Your task to perform on an android device: visit the assistant section in the google photos Image 0: 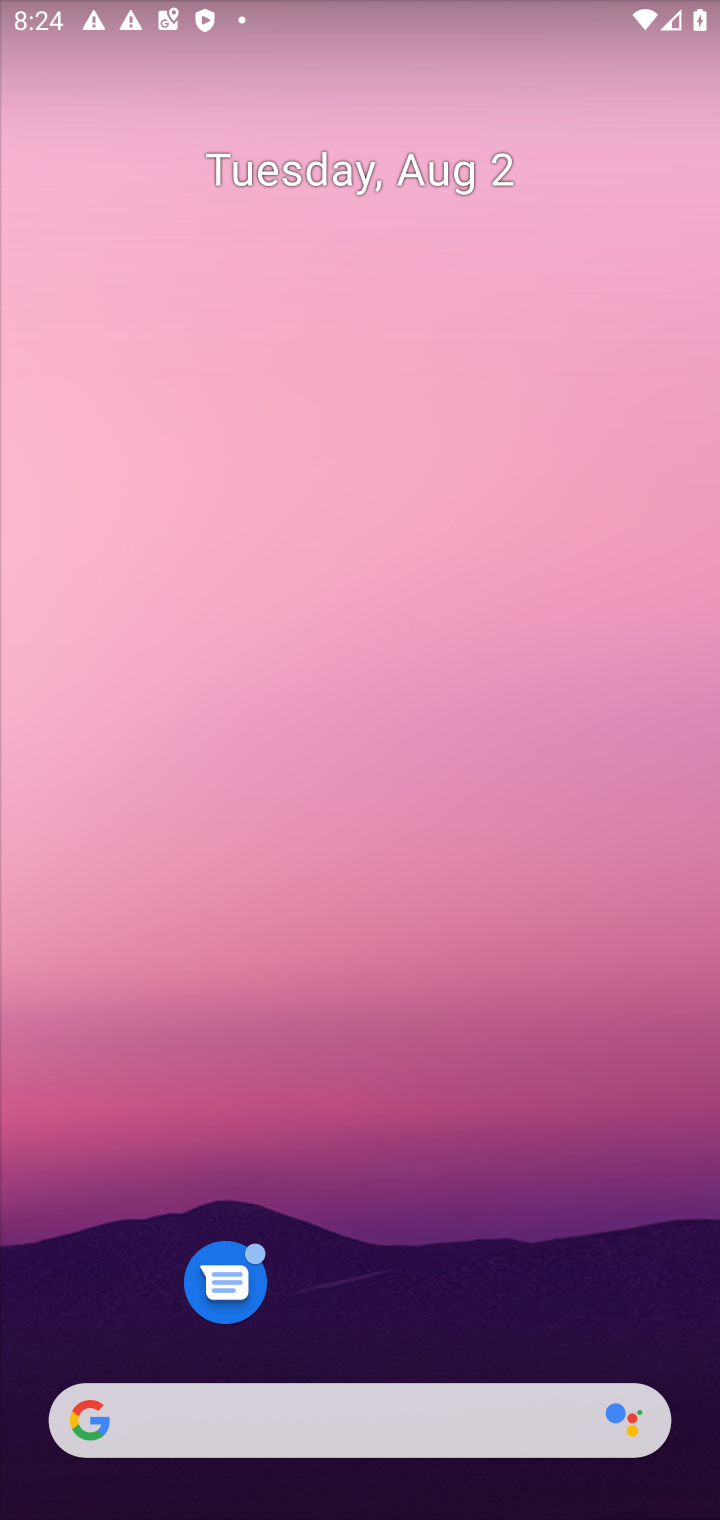
Step 0: drag from (314, 1384) to (65, 0)
Your task to perform on an android device: visit the assistant section in the google photos Image 1: 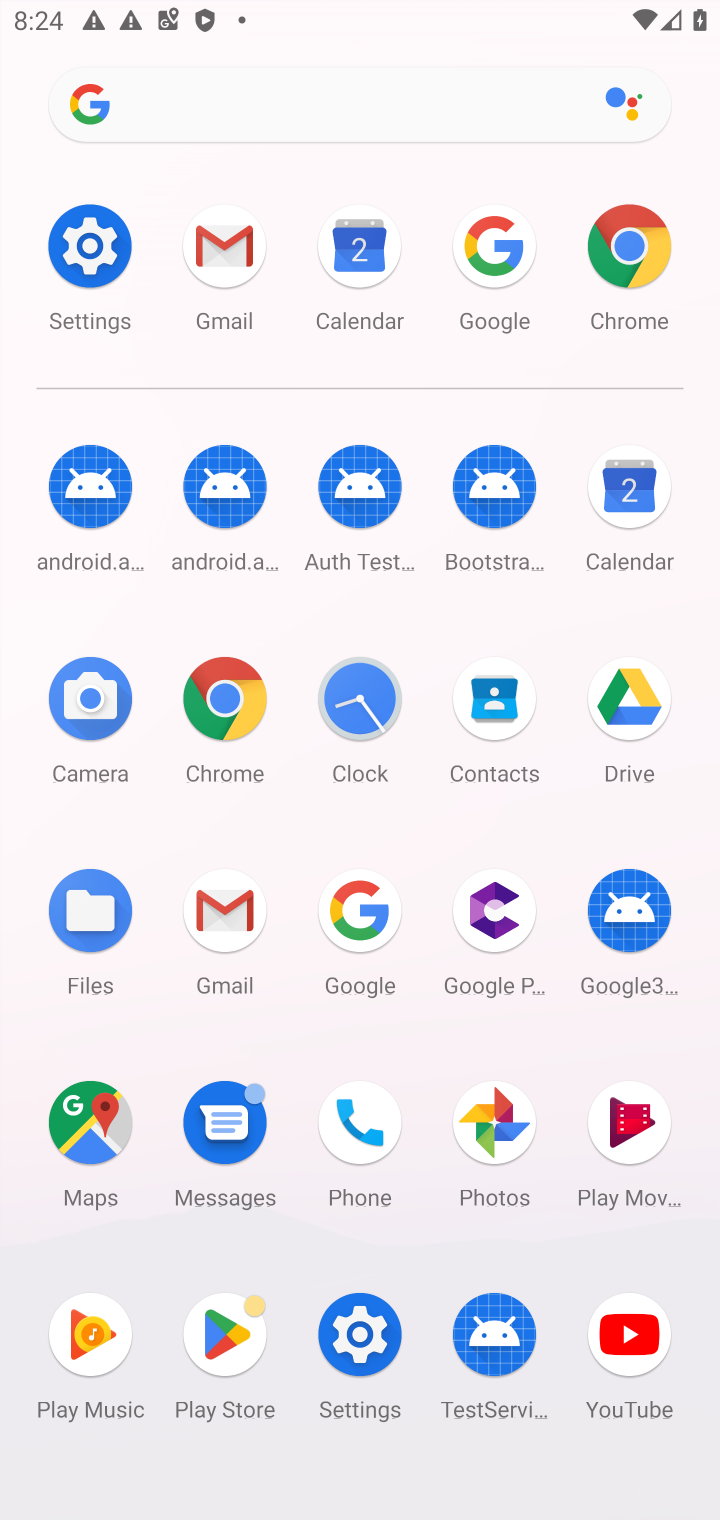
Step 1: click (517, 1137)
Your task to perform on an android device: visit the assistant section in the google photos Image 2: 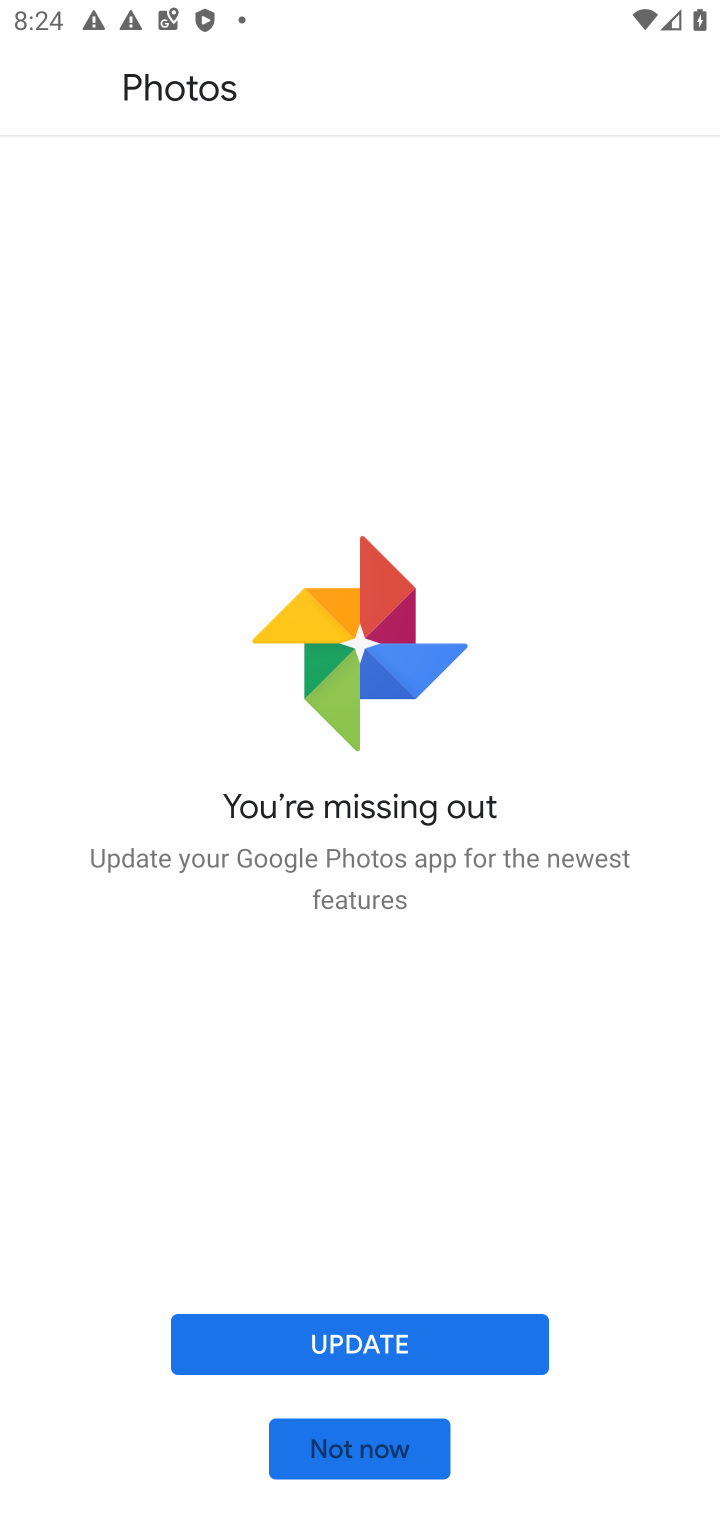
Step 2: click (358, 1447)
Your task to perform on an android device: visit the assistant section in the google photos Image 3: 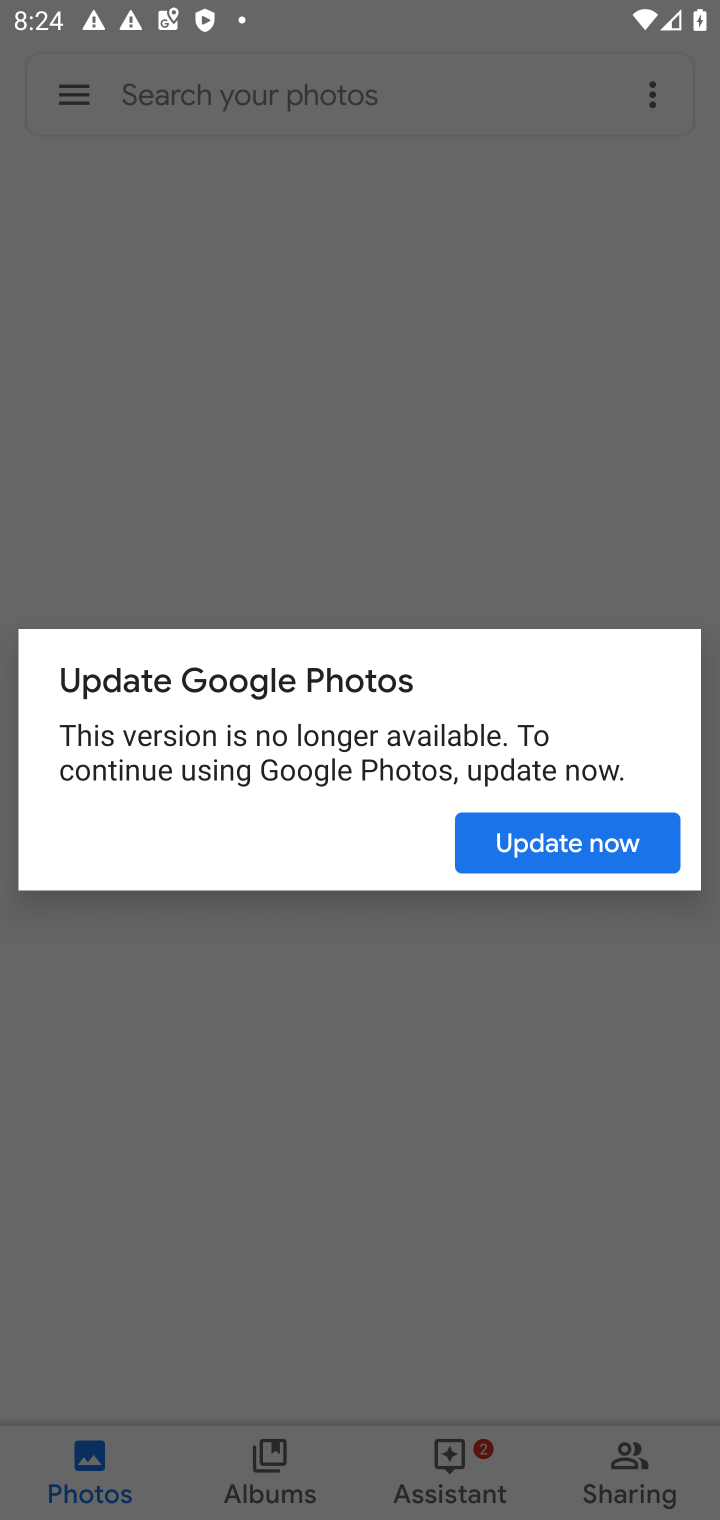
Step 3: click (606, 843)
Your task to perform on an android device: visit the assistant section in the google photos Image 4: 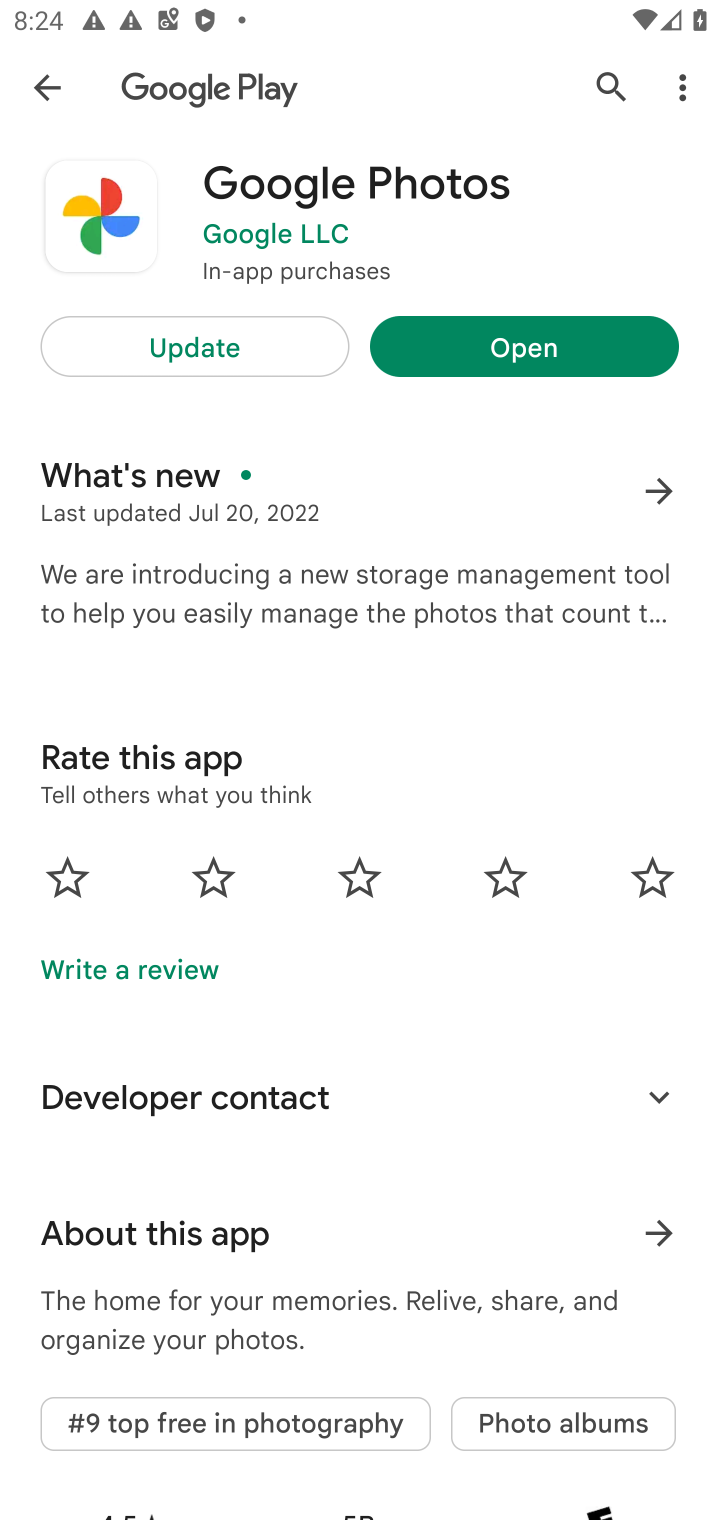
Step 4: click (477, 364)
Your task to perform on an android device: visit the assistant section in the google photos Image 5: 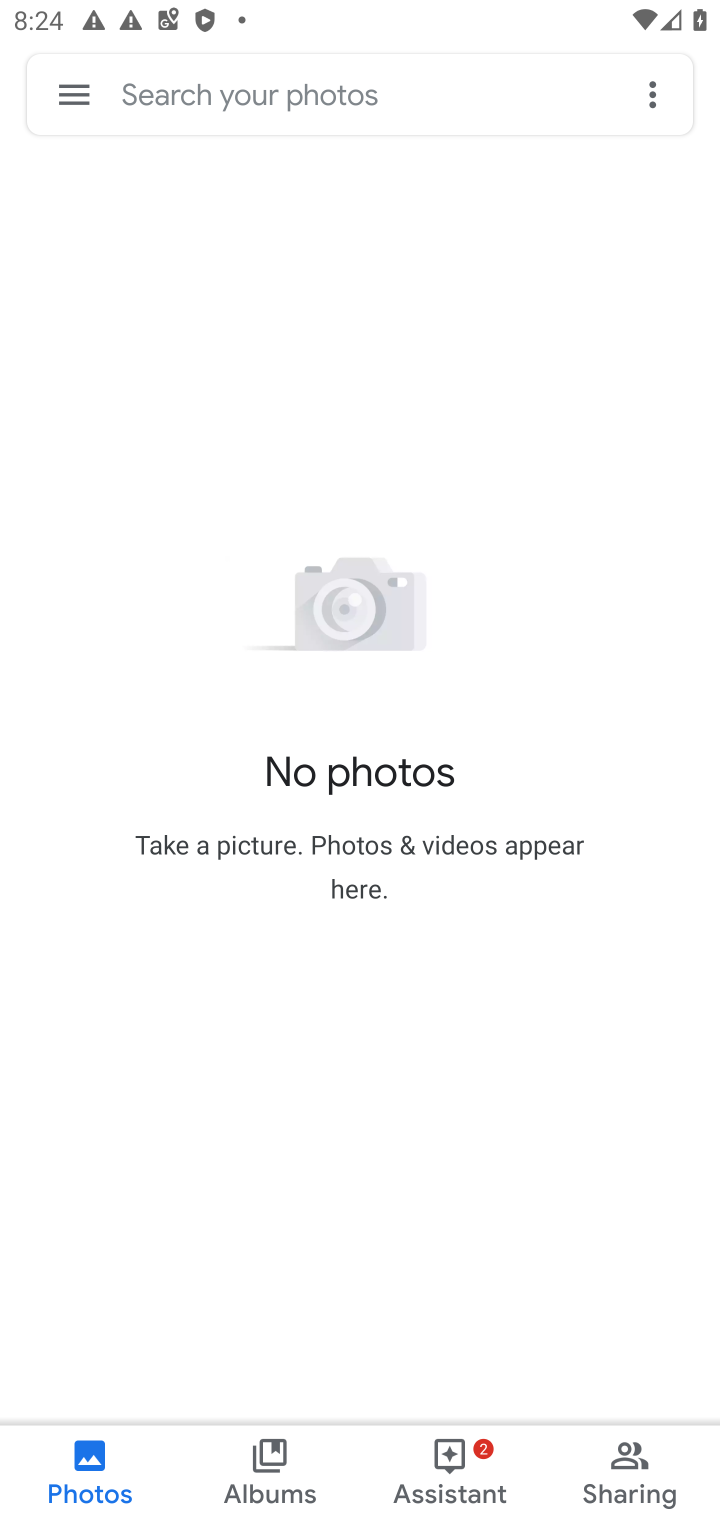
Step 5: click (420, 1457)
Your task to perform on an android device: visit the assistant section in the google photos Image 6: 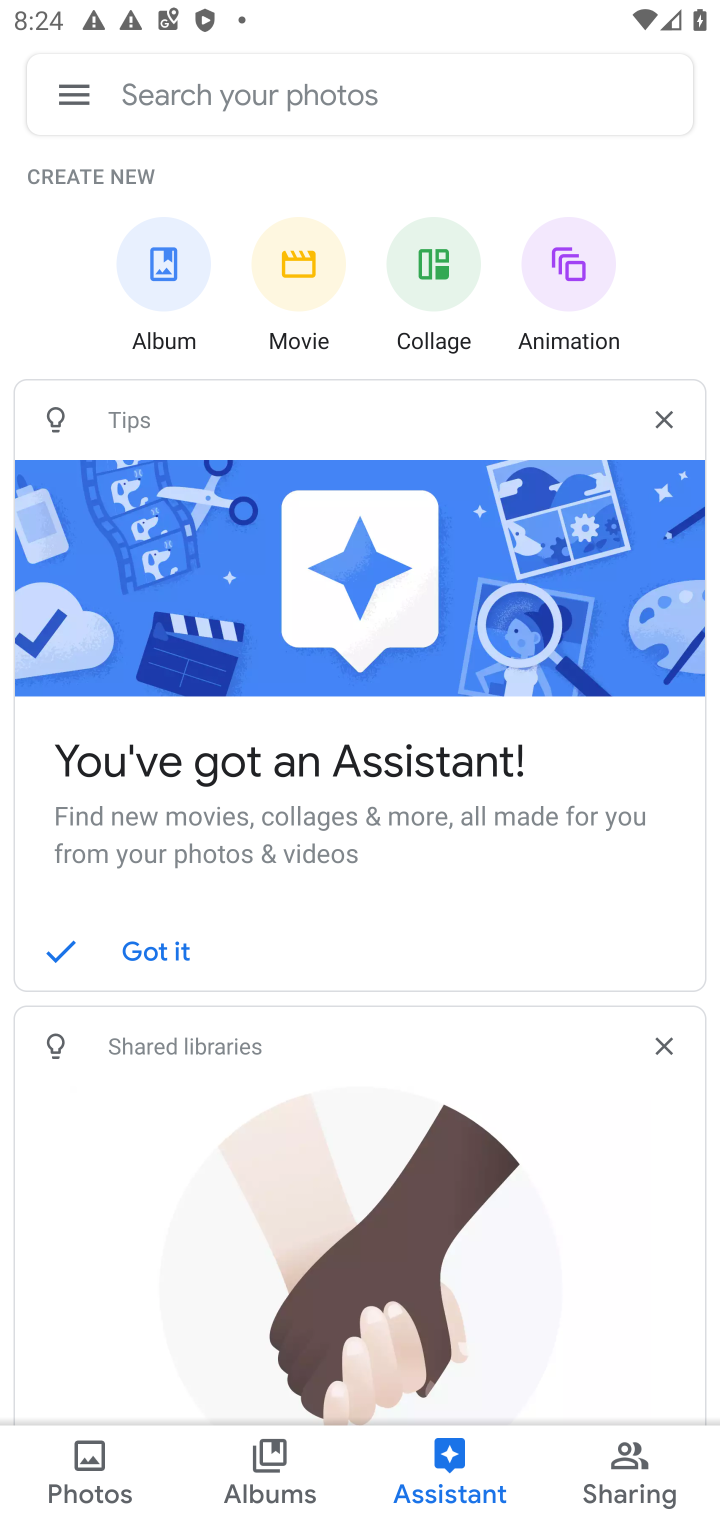
Step 6: task complete